Your task to perform on an android device: see tabs open on other devices in the chrome app Image 0: 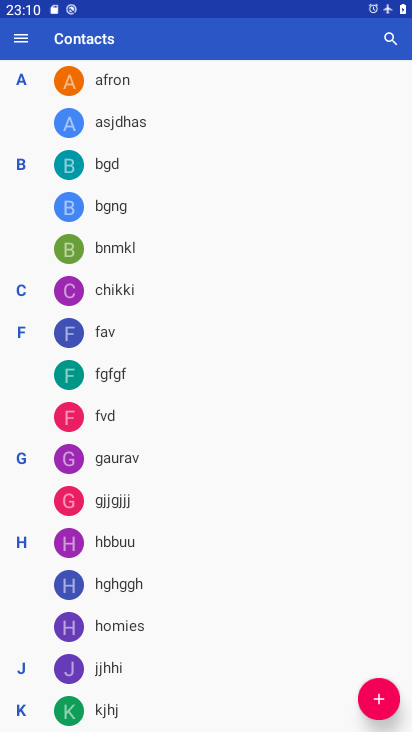
Step 0: press home button
Your task to perform on an android device: see tabs open on other devices in the chrome app Image 1: 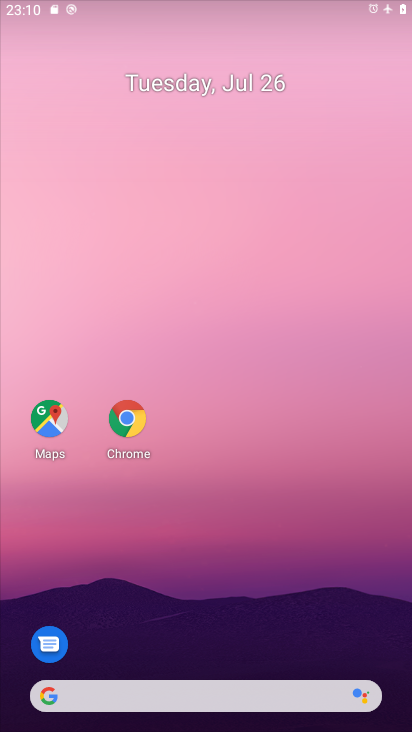
Step 1: drag from (219, 675) to (201, 284)
Your task to perform on an android device: see tabs open on other devices in the chrome app Image 2: 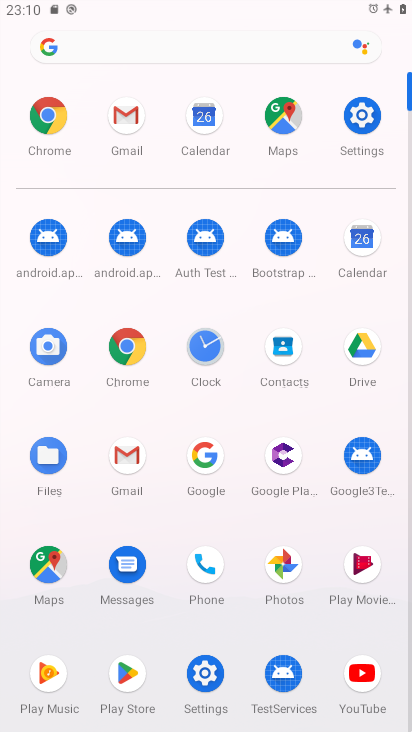
Step 2: click (139, 337)
Your task to perform on an android device: see tabs open on other devices in the chrome app Image 3: 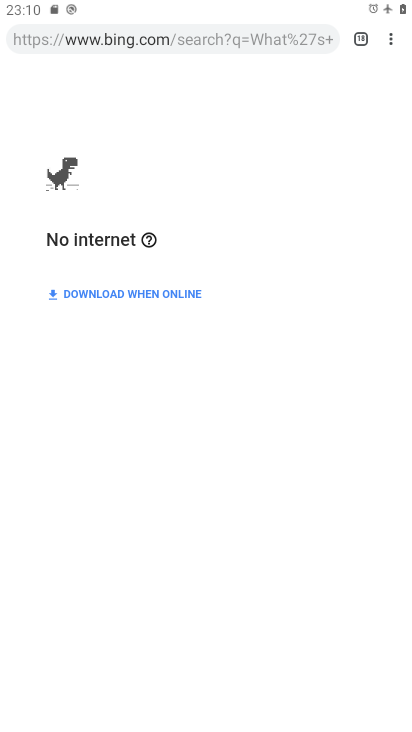
Step 3: click (393, 42)
Your task to perform on an android device: see tabs open on other devices in the chrome app Image 4: 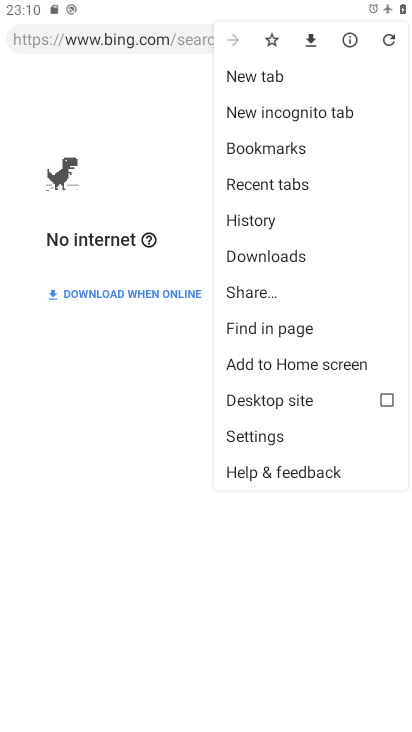
Step 4: click (266, 214)
Your task to perform on an android device: see tabs open on other devices in the chrome app Image 5: 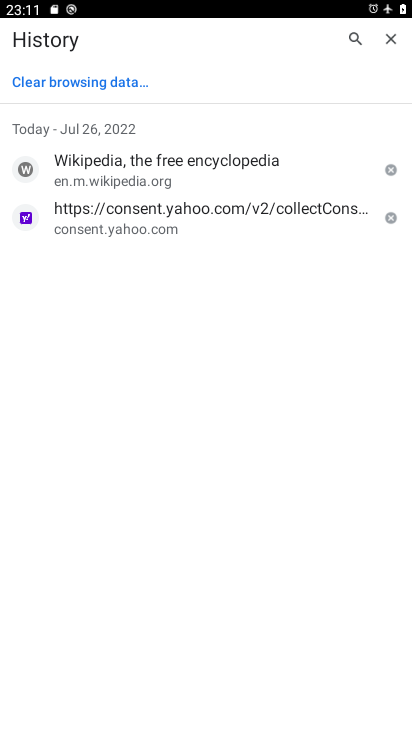
Step 5: task complete